Your task to perform on an android device: uninstall "Contacts" Image 0: 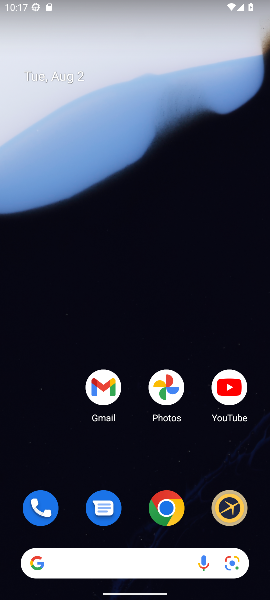
Step 0: drag from (127, 447) to (134, 21)
Your task to perform on an android device: uninstall "Contacts" Image 1: 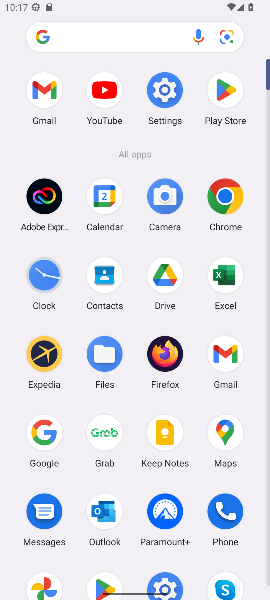
Step 1: click (228, 87)
Your task to perform on an android device: uninstall "Contacts" Image 2: 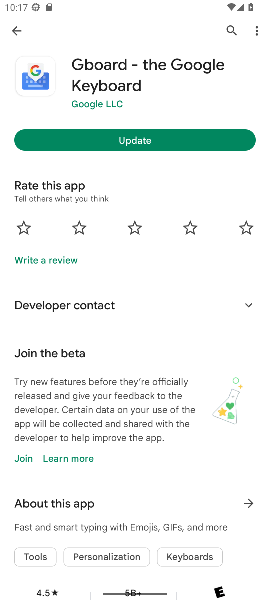
Step 2: click (227, 34)
Your task to perform on an android device: uninstall "Contacts" Image 3: 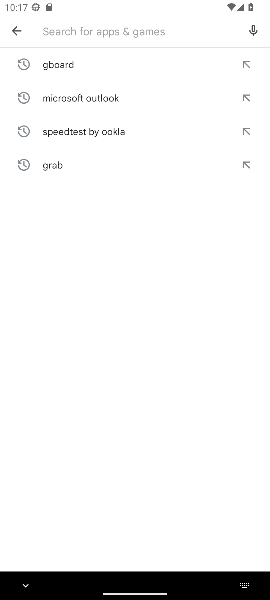
Step 3: click (147, 24)
Your task to perform on an android device: uninstall "Contacts" Image 4: 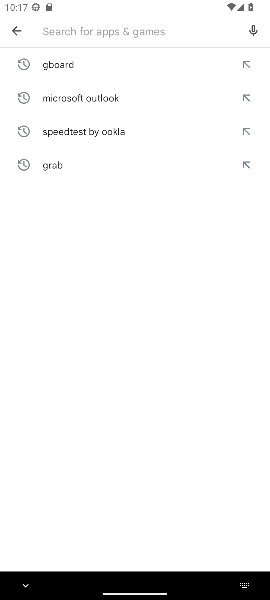
Step 4: type "Contacts"
Your task to perform on an android device: uninstall "Contacts" Image 5: 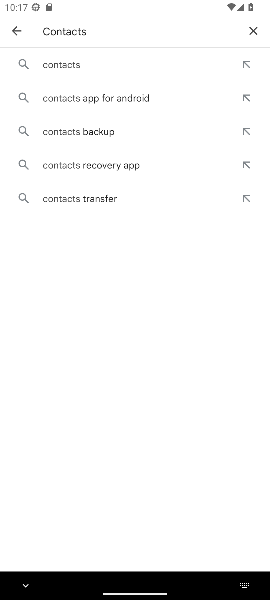
Step 5: click (47, 64)
Your task to perform on an android device: uninstall "Contacts" Image 6: 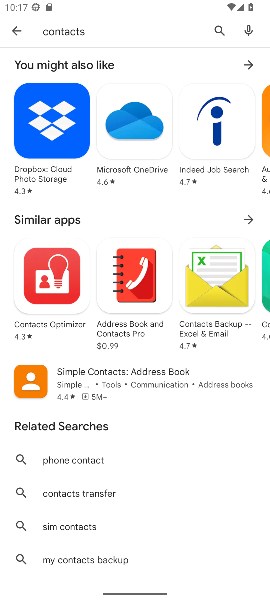
Step 6: task complete